Your task to perform on an android device: What's the weather going to be this weekend? Image 0: 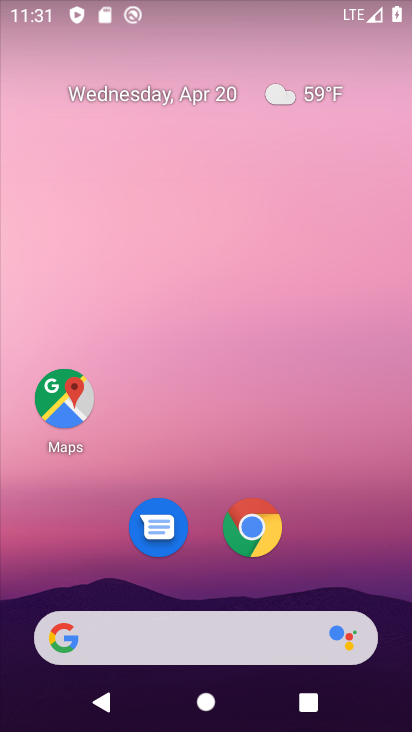
Step 0: drag from (329, 451) to (320, 155)
Your task to perform on an android device: What's the weather going to be this weekend? Image 1: 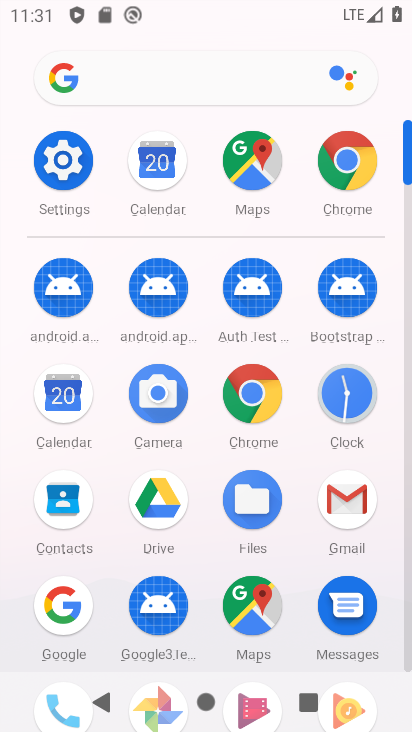
Step 1: click (246, 398)
Your task to perform on an android device: What's the weather going to be this weekend? Image 2: 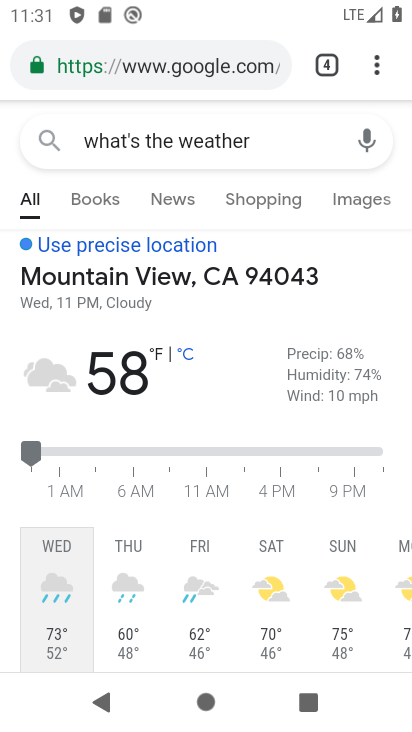
Step 2: click (250, 50)
Your task to perform on an android device: What's the weather going to be this weekend? Image 3: 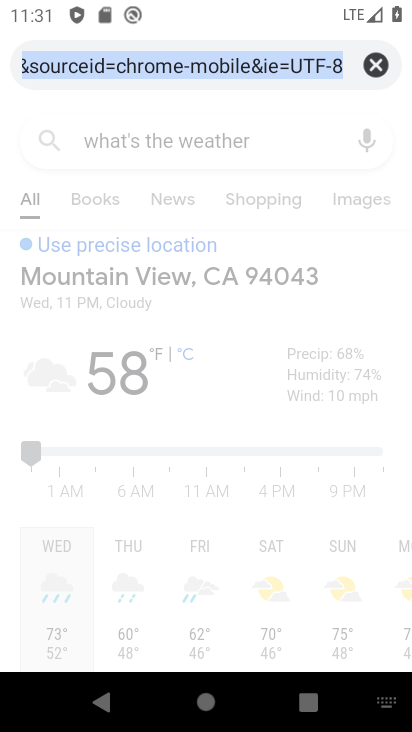
Step 3: click (368, 65)
Your task to perform on an android device: What's the weather going to be this weekend? Image 4: 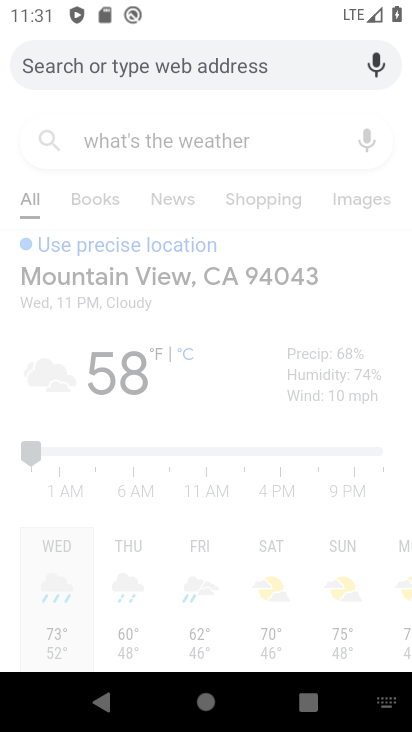
Step 4: type "what's the weather going to be this weekend"
Your task to perform on an android device: What's the weather going to be this weekend? Image 5: 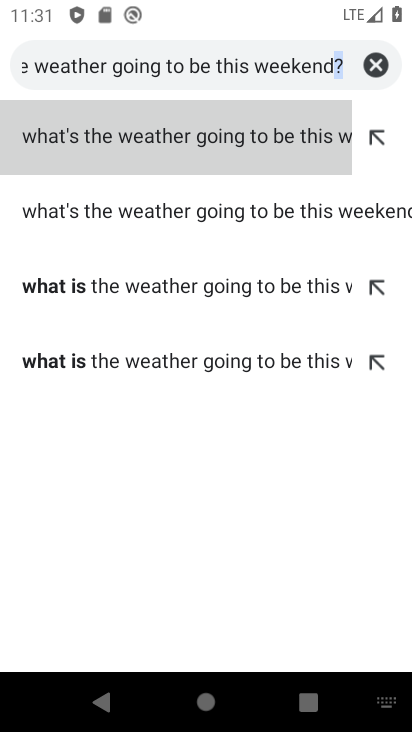
Step 5: click (188, 141)
Your task to perform on an android device: What's the weather going to be this weekend? Image 6: 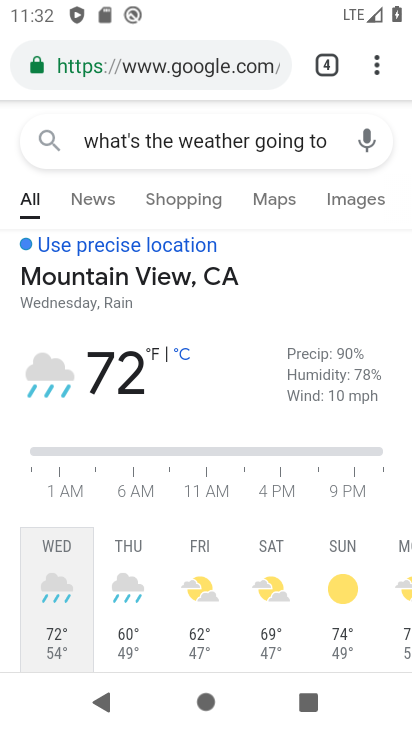
Step 6: task complete